Your task to perform on an android device: Open the calendar and show me this week's events? Image 0: 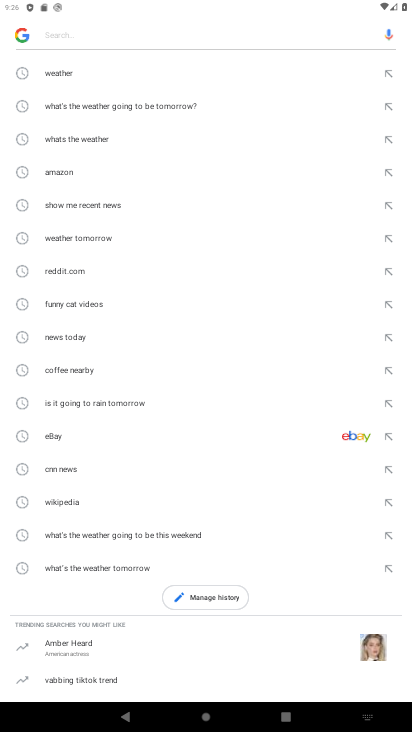
Step 0: press home button
Your task to perform on an android device: Open the calendar and show me this week's events? Image 1: 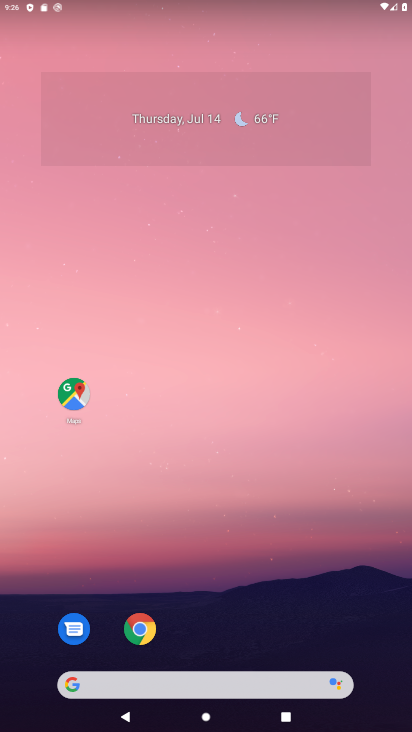
Step 1: drag from (284, 567) to (285, 102)
Your task to perform on an android device: Open the calendar and show me this week's events? Image 2: 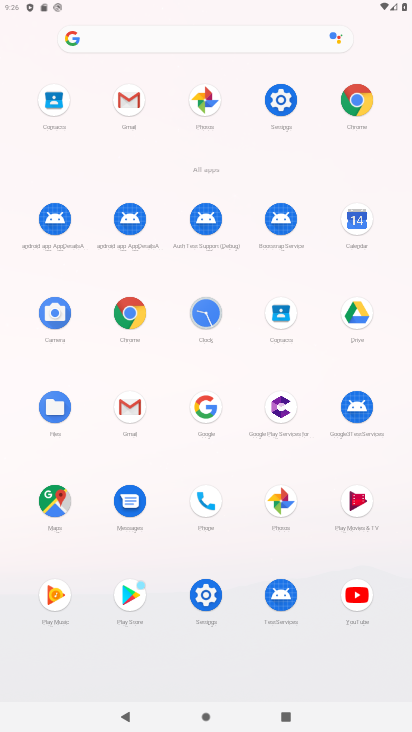
Step 2: click (356, 217)
Your task to perform on an android device: Open the calendar and show me this week's events? Image 3: 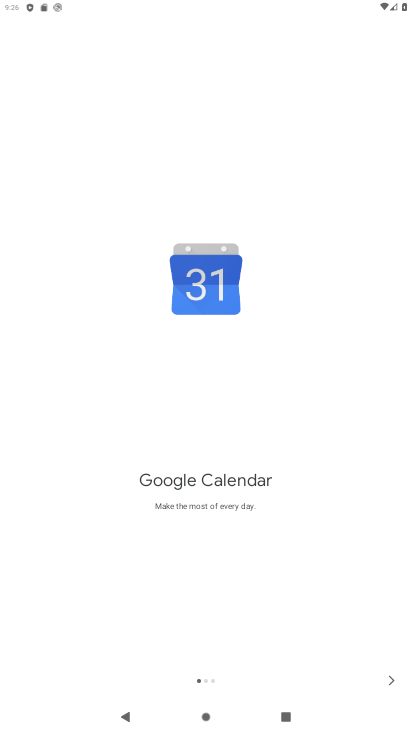
Step 3: click (387, 674)
Your task to perform on an android device: Open the calendar and show me this week's events? Image 4: 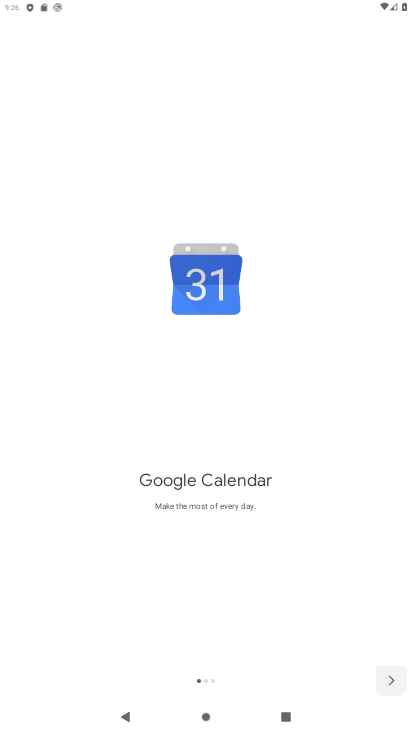
Step 4: click (387, 674)
Your task to perform on an android device: Open the calendar and show me this week's events? Image 5: 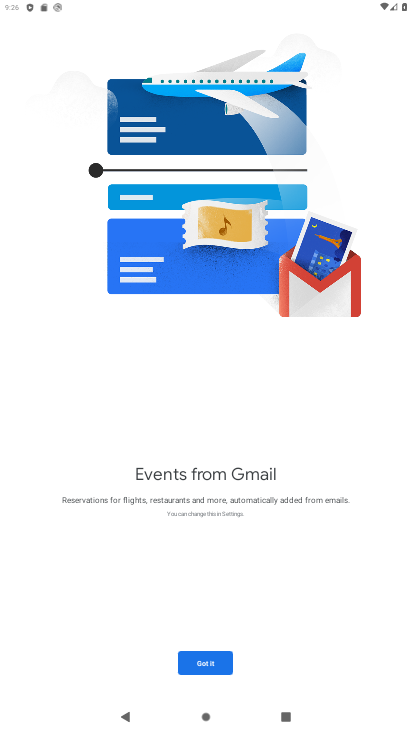
Step 5: click (203, 662)
Your task to perform on an android device: Open the calendar and show me this week's events? Image 6: 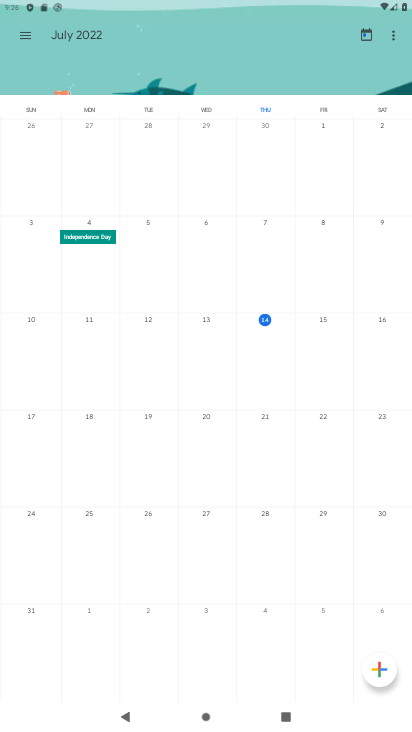
Step 6: click (23, 32)
Your task to perform on an android device: Open the calendar and show me this week's events? Image 7: 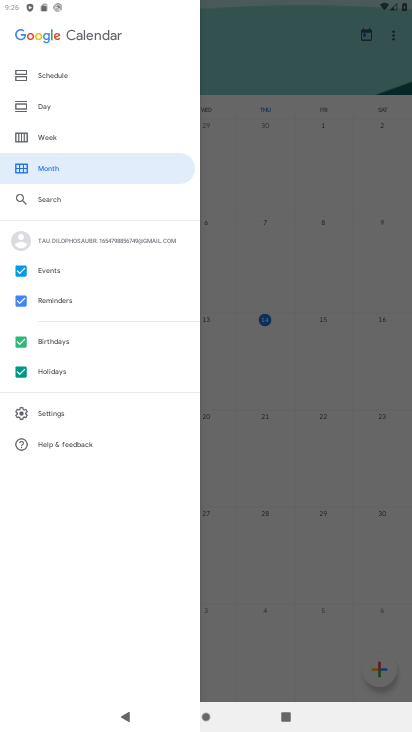
Step 7: click (38, 140)
Your task to perform on an android device: Open the calendar and show me this week's events? Image 8: 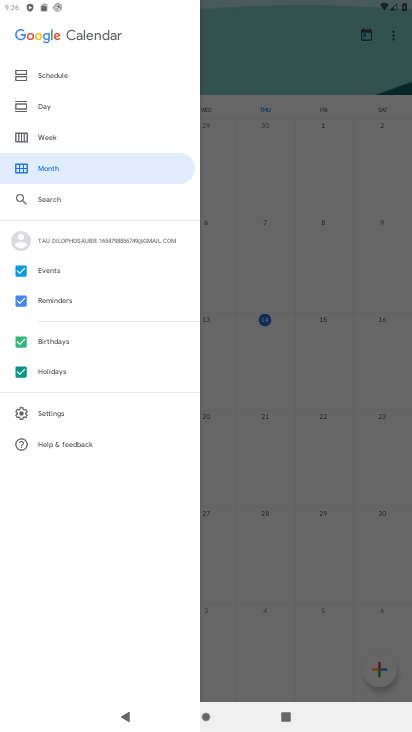
Step 8: click (50, 130)
Your task to perform on an android device: Open the calendar and show me this week's events? Image 9: 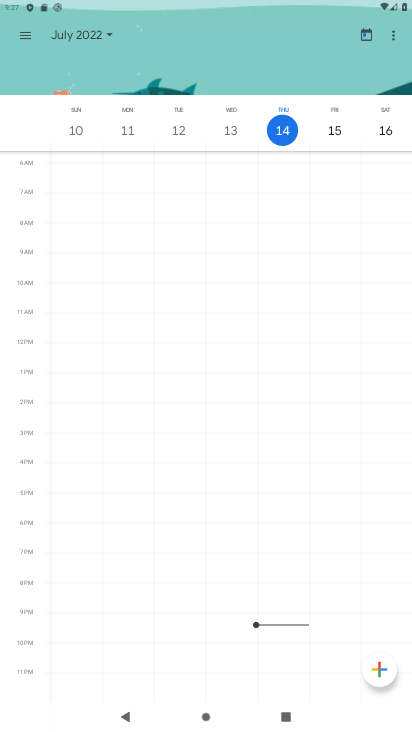
Step 9: task complete